Your task to perform on an android device: turn off notifications settings in the gmail app Image 0: 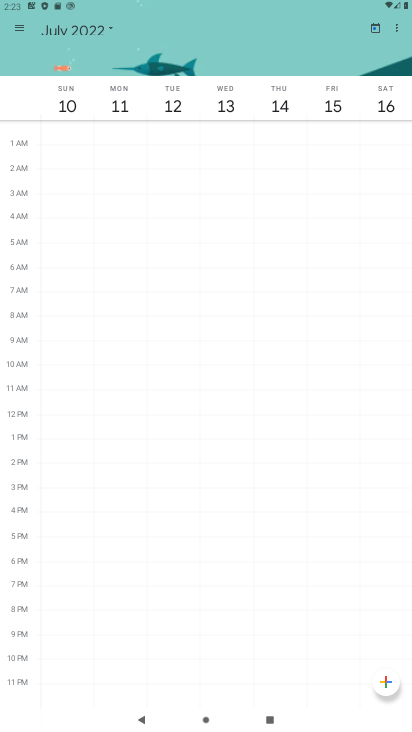
Step 0: press home button
Your task to perform on an android device: turn off notifications settings in the gmail app Image 1: 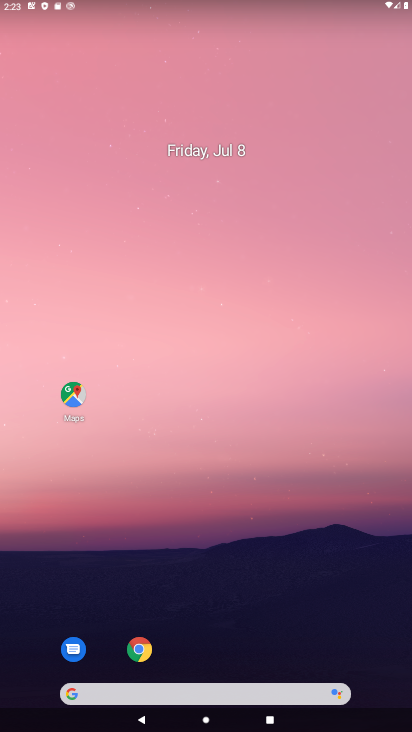
Step 1: drag from (381, 654) to (326, 172)
Your task to perform on an android device: turn off notifications settings in the gmail app Image 2: 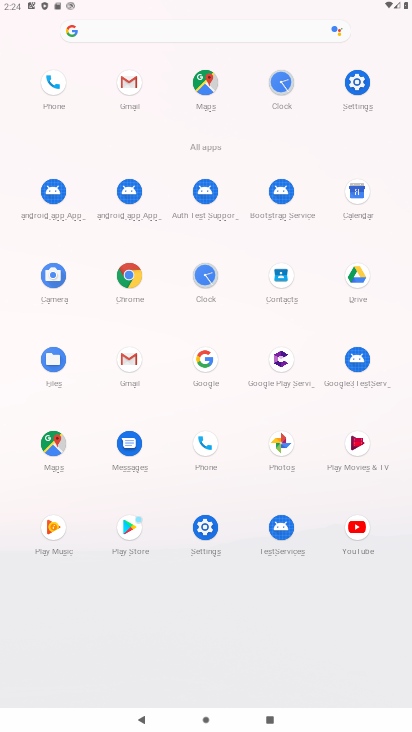
Step 2: click (126, 357)
Your task to perform on an android device: turn off notifications settings in the gmail app Image 3: 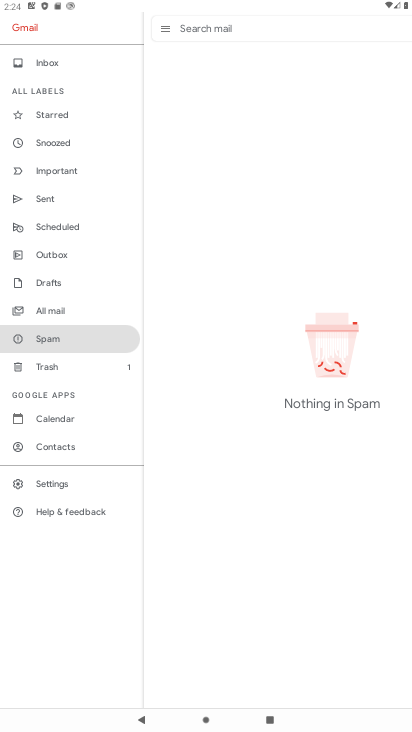
Step 3: click (50, 484)
Your task to perform on an android device: turn off notifications settings in the gmail app Image 4: 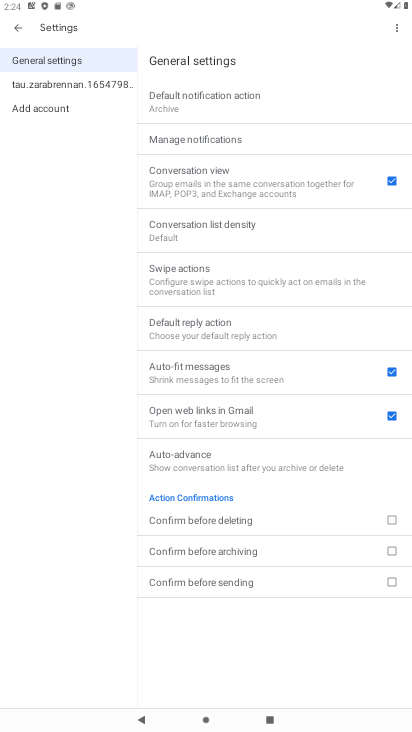
Step 4: click (74, 83)
Your task to perform on an android device: turn off notifications settings in the gmail app Image 5: 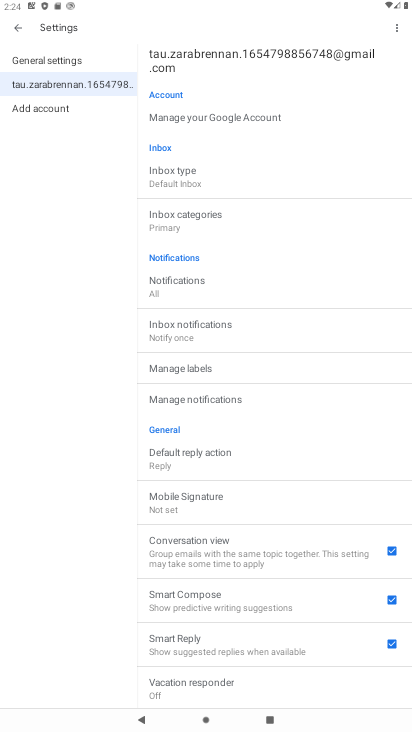
Step 5: click (188, 396)
Your task to perform on an android device: turn off notifications settings in the gmail app Image 6: 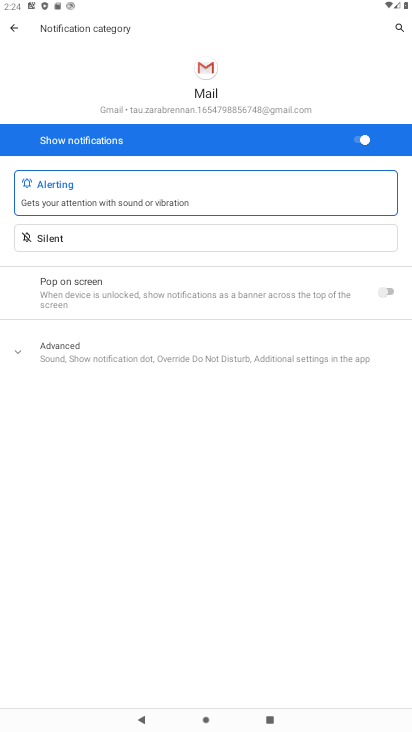
Step 6: click (357, 137)
Your task to perform on an android device: turn off notifications settings in the gmail app Image 7: 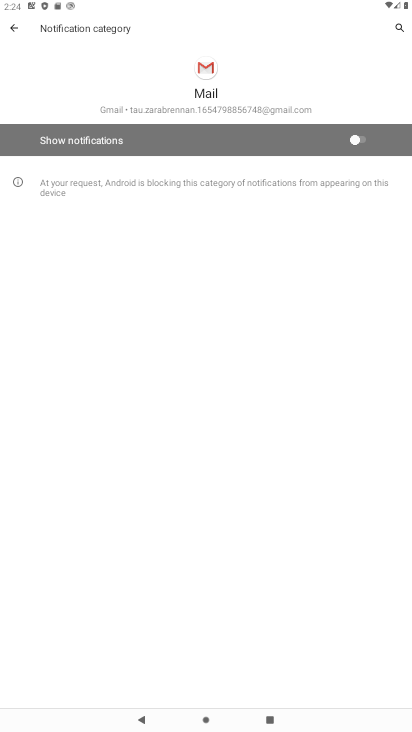
Step 7: task complete